Your task to perform on an android device: move an email to a new category in the gmail app Image 0: 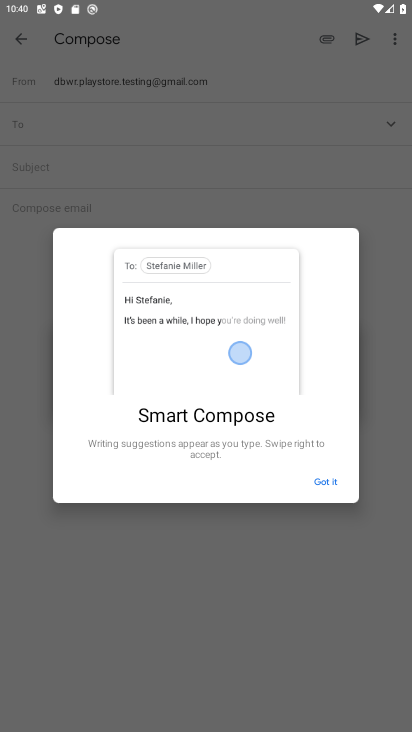
Step 0: press home button
Your task to perform on an android device: move an email to a new category in the gmail app Image 1: 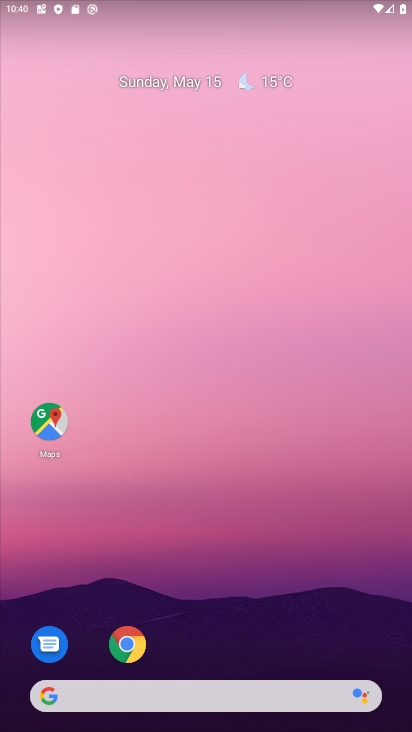
Step 1: drag from (329, 614) to (261, 173)
Your task to perform on an android device: move an email to a new category in the gmail app Image 2: 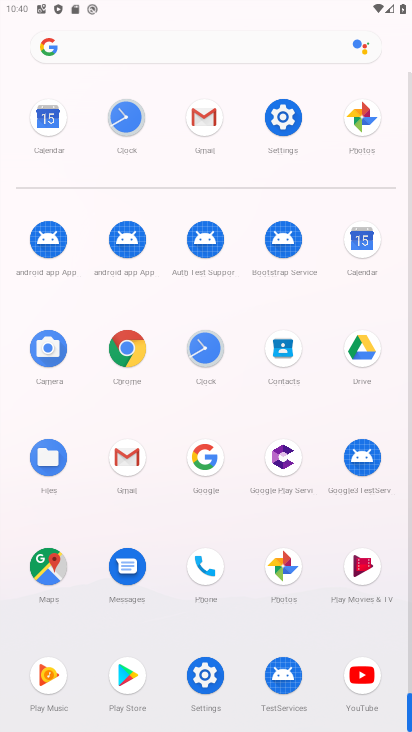
Step 2: click (123, 463)
Your task to perform on an android device: move an email to a new category in the gmail app Image 3: 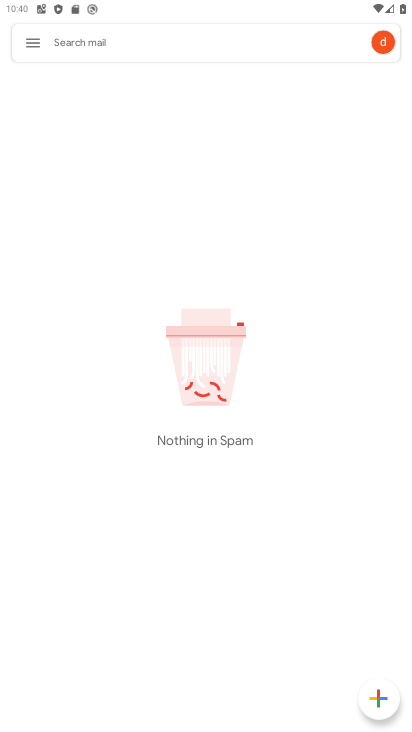
Step 3: task complete